Your task to perform on an android device: toggle wifi Image 0: 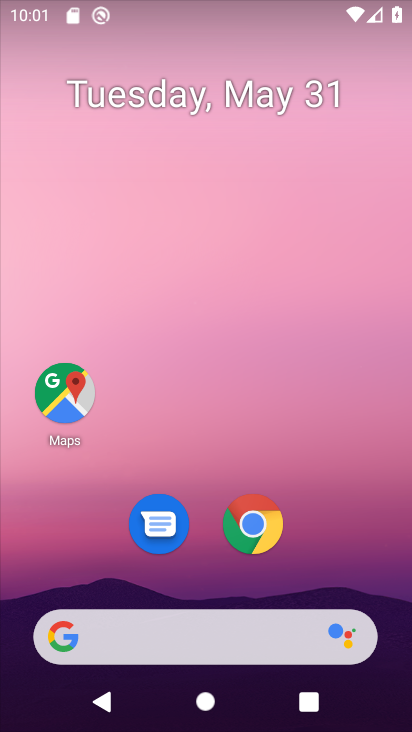
Step 0: drag from (221, 468) to (205, 60)
Your task to perform on an android device: toggle wifi Image 1: 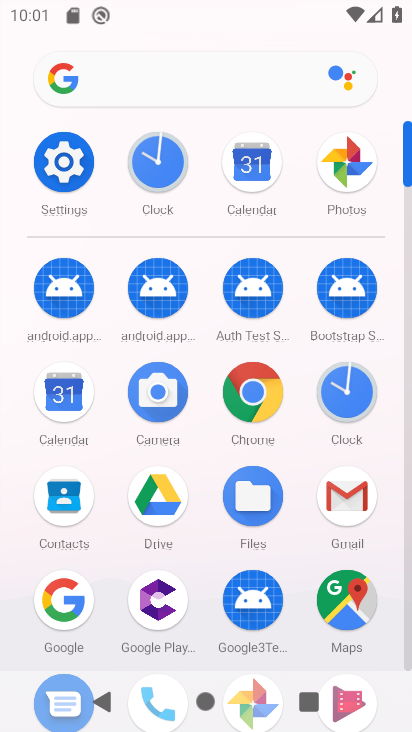
Step 1: click (76, 165)
Your task to perform on an android device: toggle wifi Image 2: 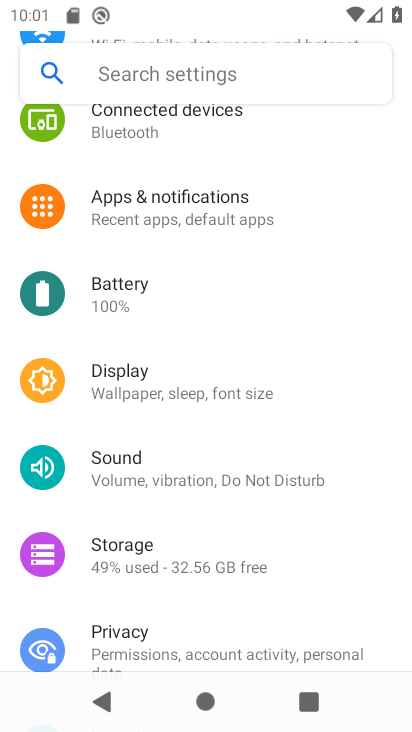
Step 2: drag from (226, 280) to (242, 513)
Your task to perform on an android device: toggle wifi Image 3: 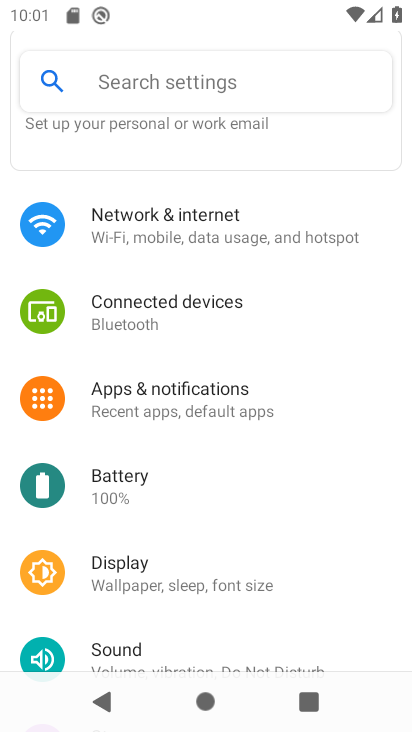
Step 3: click (229, 227)
Your task to perform on an android device: toggle wifi Image 4: 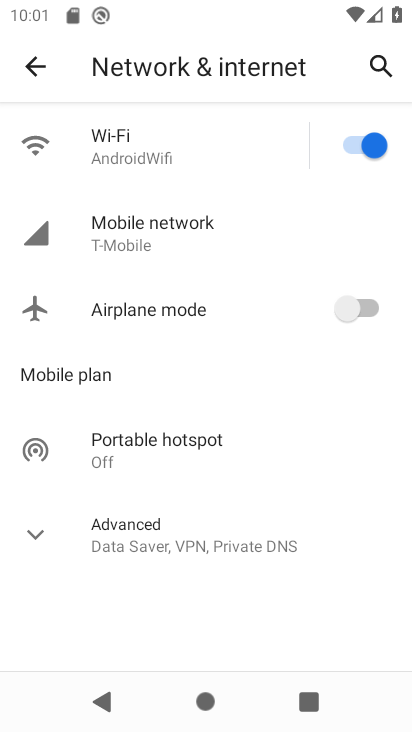
Step 4: click (357, 140)
Your task to perform on an android device: toggle wifi Image 5: 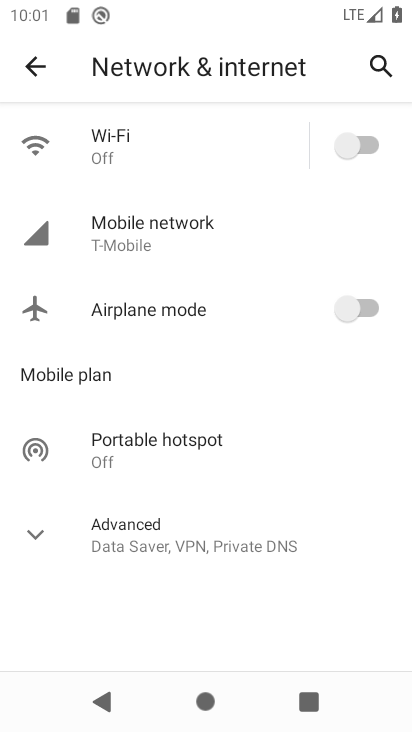
Step 5: task complete